Your task to perform on an android device: Open battery settings Image 0: 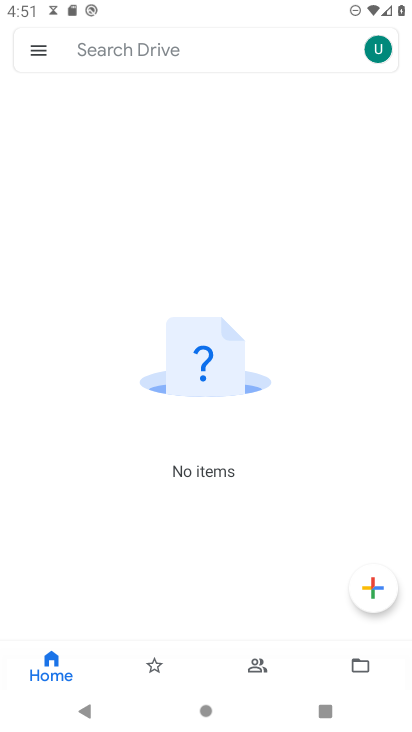
Step 0: press back button
Your task to perform on an android device: Open battery settings Image 1: 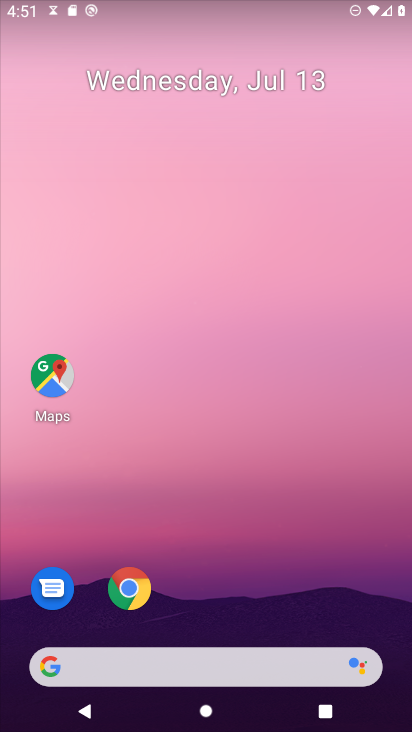
Step 1: click (91, 145)
Your task to perform on an android device: Open battery settings Image 2: 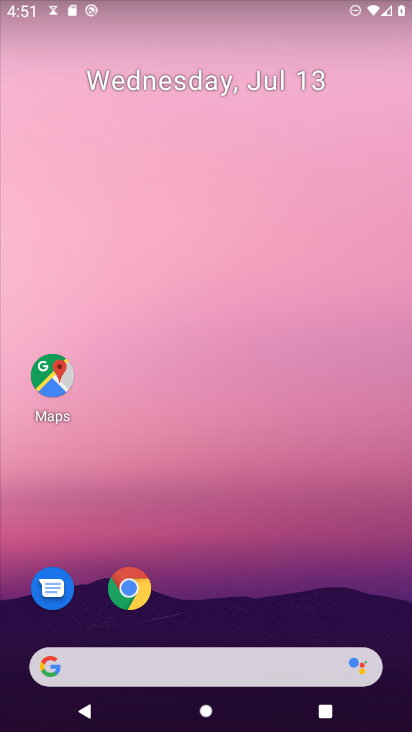
Step 2: drag from (276, 394) to (191, 32)
Your task to perform on an android device: Open battery settings Image 3: 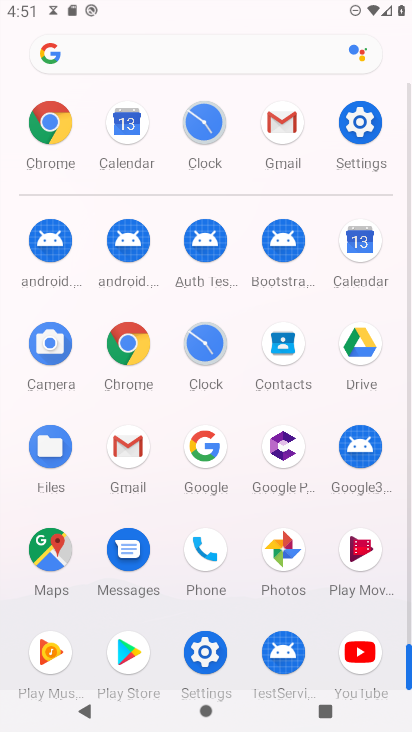
Step 3: click (216, 650)
Your task to perform on an android device: Open battery settings Image 4: 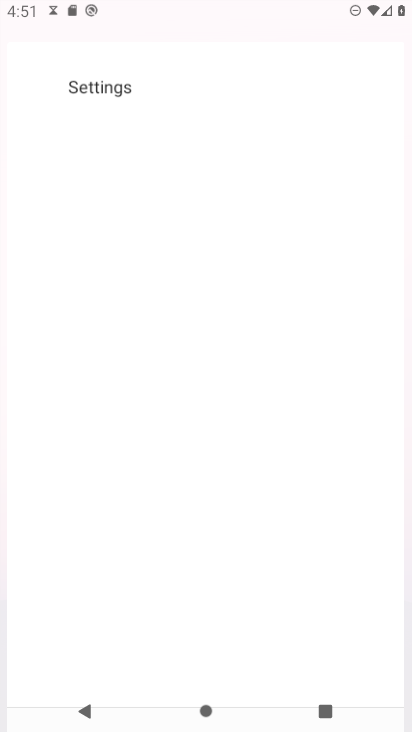
Step 4: click (217, 652)
Your task to perform on an android device: Open battery settings Image 5: 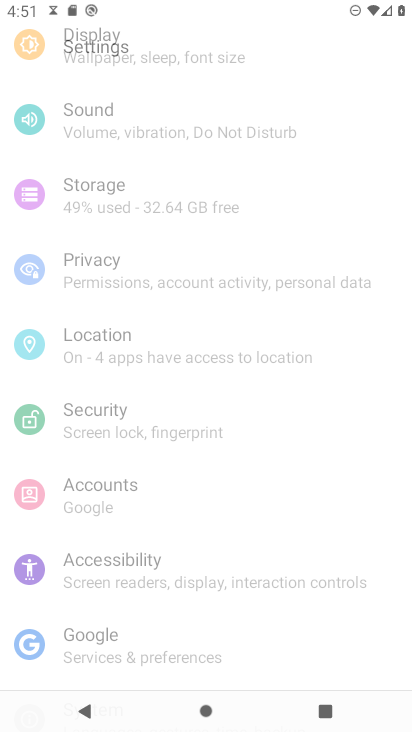
Step 5: click (217, 652)
Your task to perform on an android device: Open battery settings Image 6: 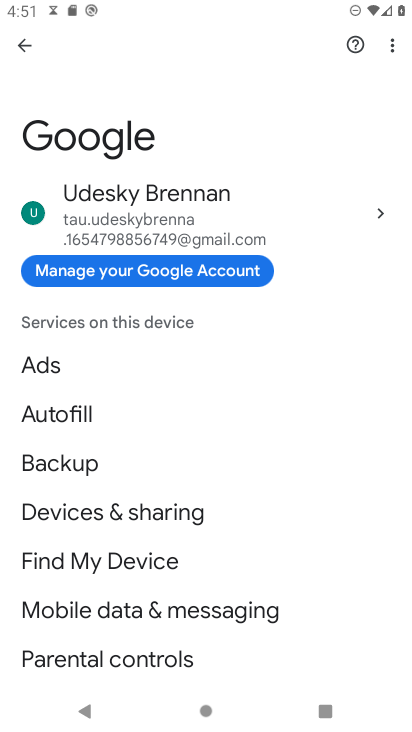
Step 6: press back button
Your task to perform on an android device: Open battery settings Image 7: 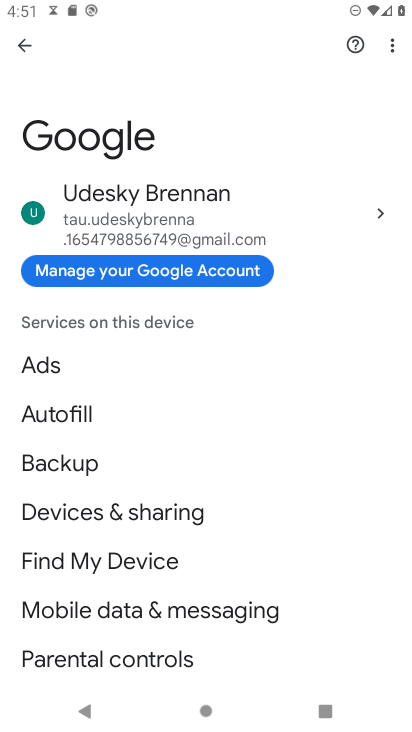
Step 7: press back button
Your task to perform on an android device: Open battery settings Image 8: 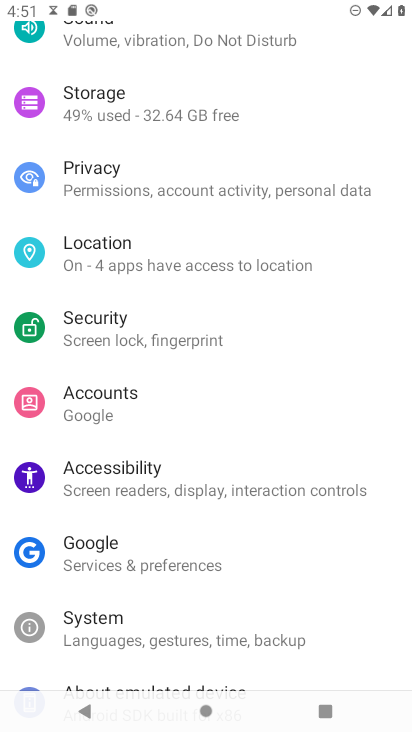
Step 8: press back button
Your task to perform on an android device: Open battery settings Image 9: 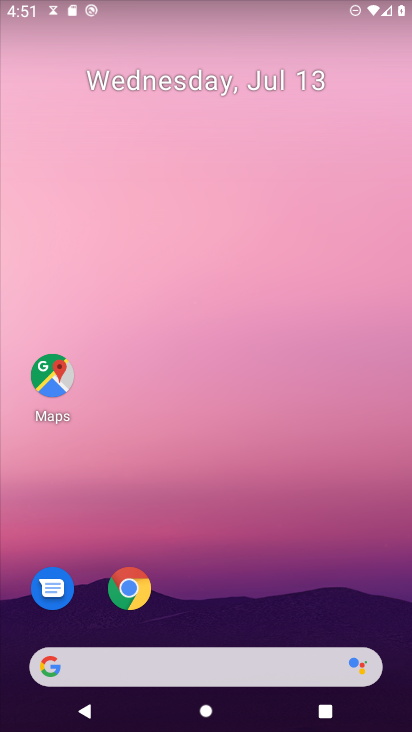
Step 9: press home button
Your task to perform on an android device: Open battery settings Image 10: 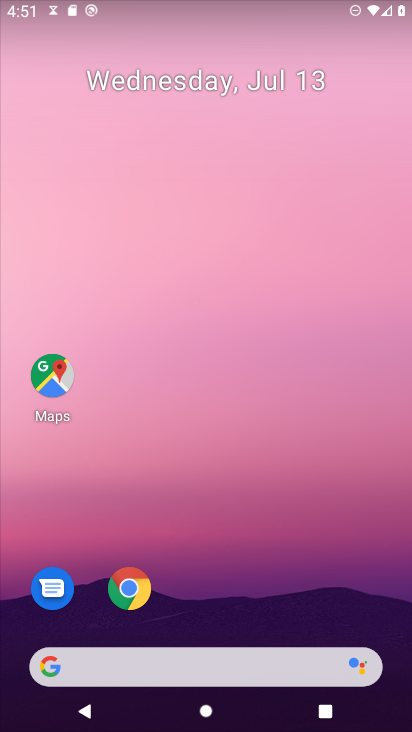
Step 10: drag from (269, 654) to (225, 163)
Your task to perform on an android device: Open battery settings Image 11: 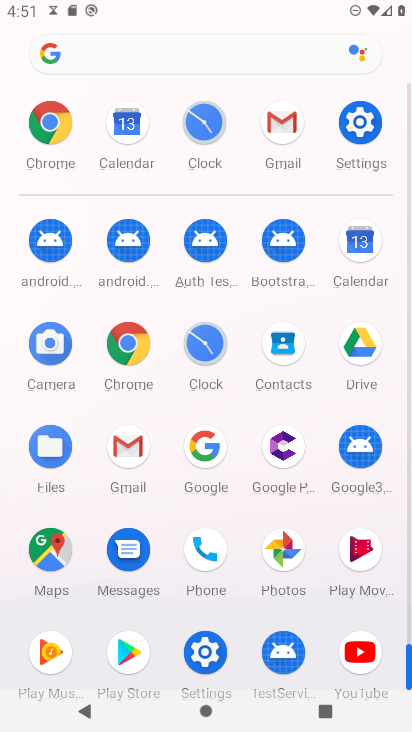
Step 11: click (364, 125)
Your task to perform on an android device: Open battery settings Image 12: 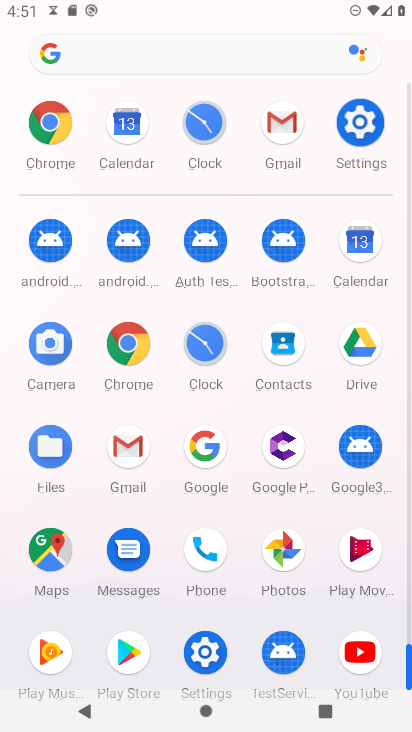
Step 12: click (365, 121)
Your task to perform on an android device: Open battery settings Image 13: 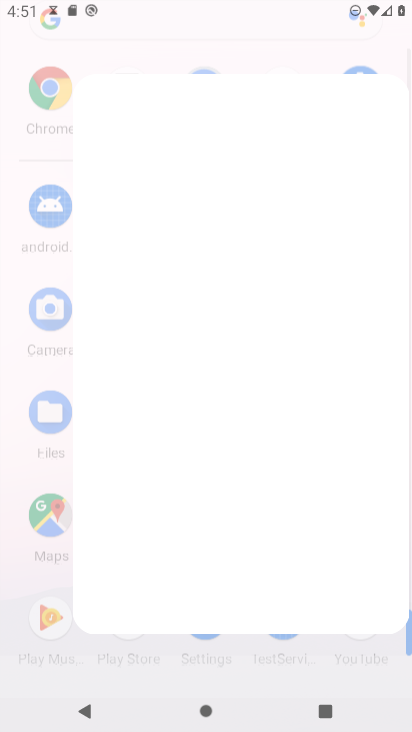
Step 13: click (365, 121)
Your task to perform on an android device: Open battery settings Image 14: 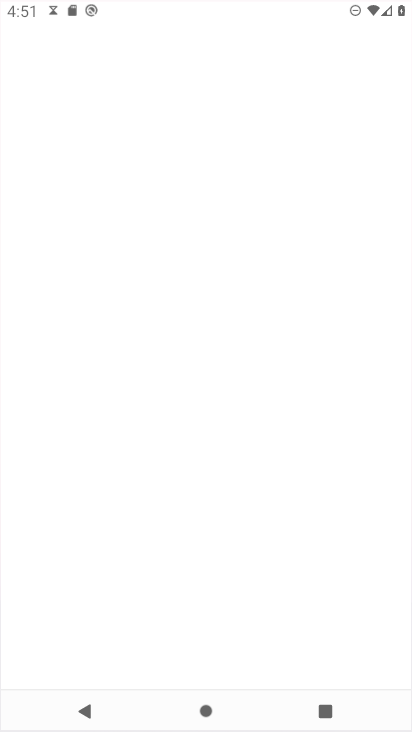
Step 14: click (365, 120)
Your task to perform on an android device: Open battery settings Image 15: 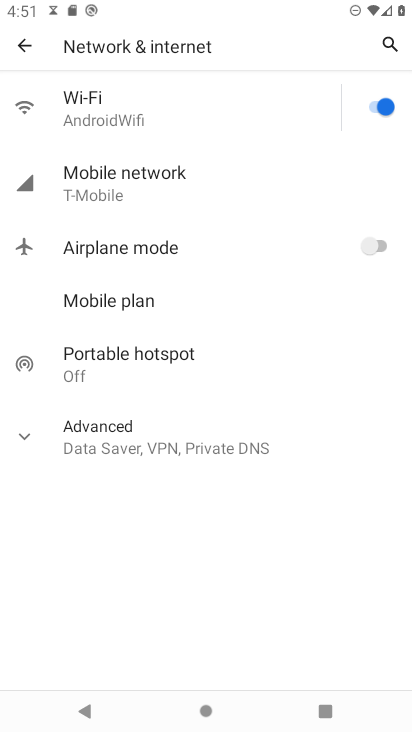
Step 15: click (28, 44)
Your task to perform on an android device: Open battery settings Image 16: 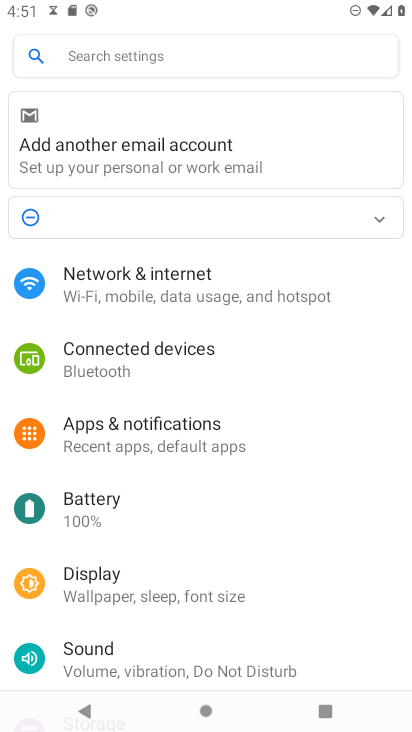
Step 16: click (104, 511)
Your task to perform on an android device: Open battery settings Image 17: 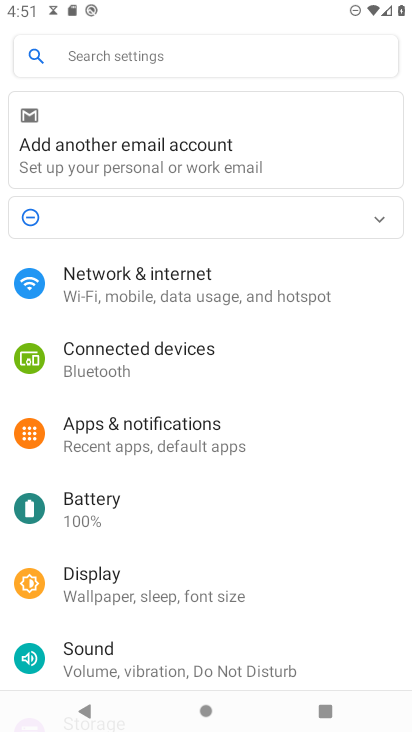
Step 17: click (108, 521)
Your task to perform on an android device: Open battery settings Image 18: 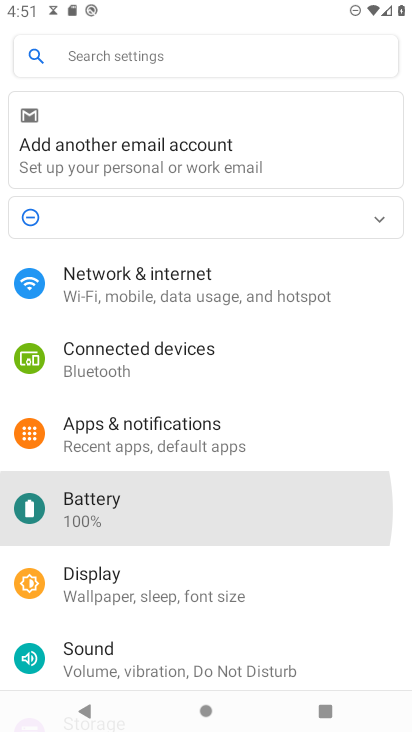
Step 18: click (113, 521)
Your task to perform on an android device: Open battery settings Image 19: 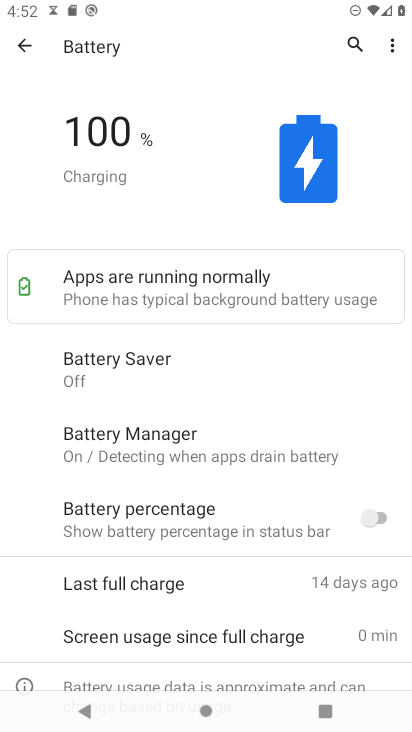
Step 19: task complete